Your task to perform on an android device: turn off translation in the chrome app Image 0: 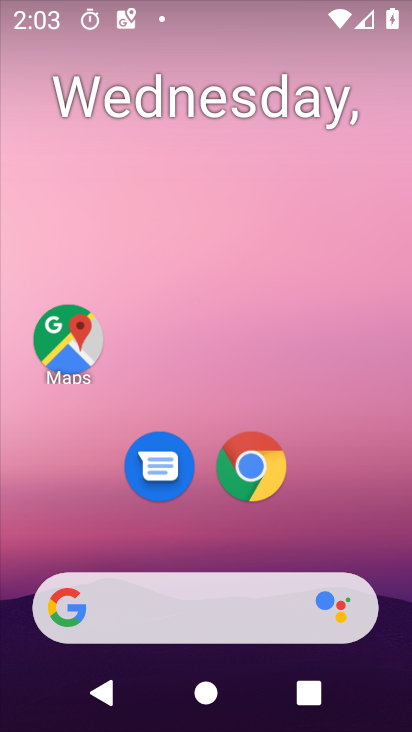
Step 0: click (245, 482)
Your task to perform on an android device: turn off translation in the chrome app Image 1: 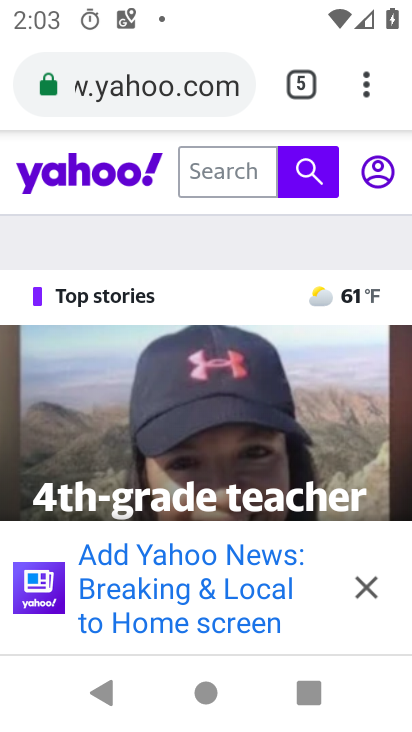
Step 1: click (359, 81)
Your task to perform on an android device: turn off translation in the chrome app Image 2: 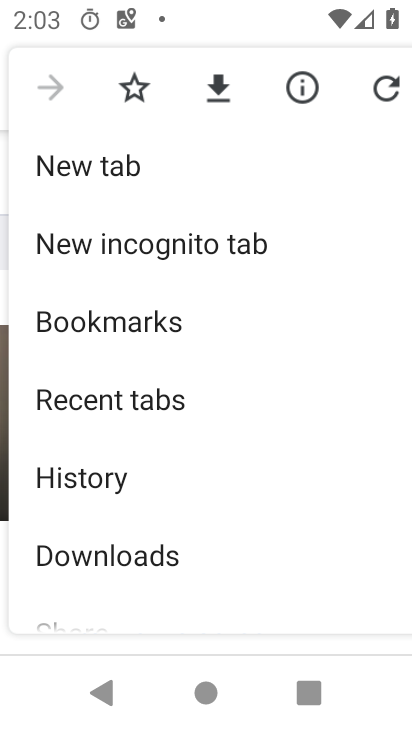
Step 2: drag from (246, 522) to (240, 170)
Your task to perform on an android device: turn off translation in the chrome app Image 3: 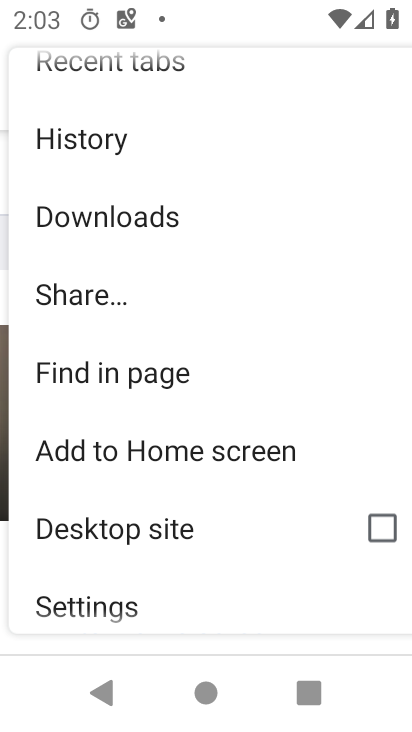
Step 3: drag from (242, 484) to (219, 219)
Your task to perform on an android device: turn off translation in the chrome app Image 4: 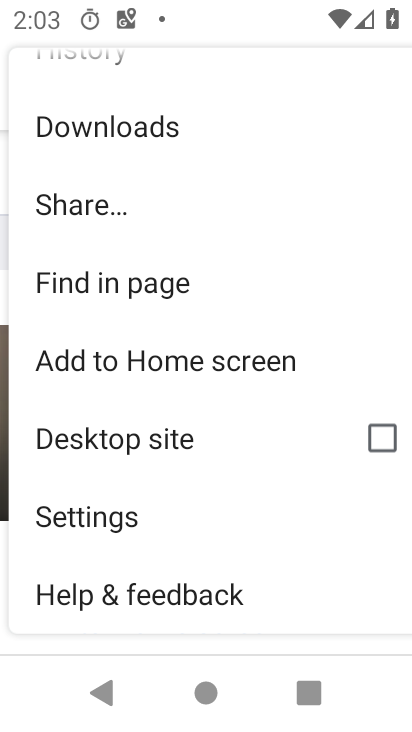
Step 4: click (165, 515)
Your task to perform on an android device: turn off translation in the chrome app Image 5: 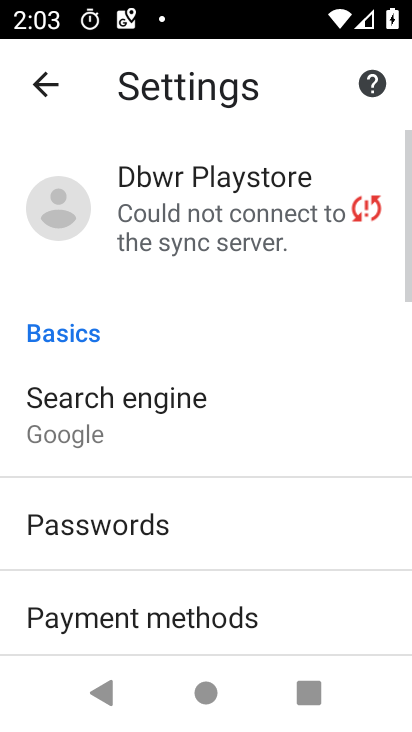
Step 5: drag from (166, 556) to (189, 303)
Your task to perform on an android device: turn off translation in the chrome app Image 6: 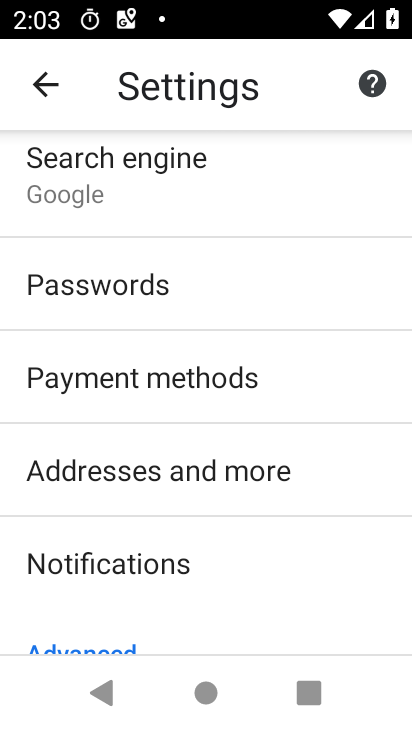
Step 6: drag from (211, 511) to (253, 275)
Your task to perform on an android device: turn off translation in the chrome app Image 7: 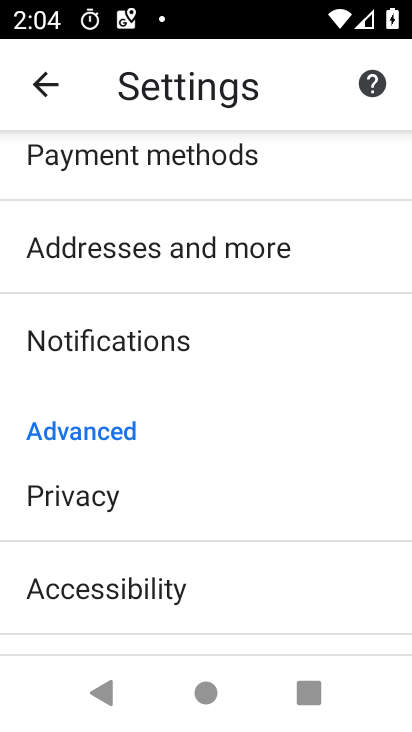
Step 7: drag from (229, 403) to (258, 220)
Your task to perform on an android device: turn off translation in the chrome app Image 8: 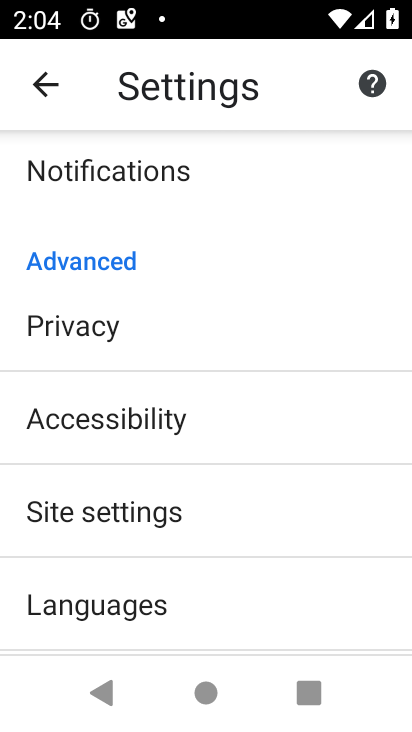
Step 8: click (210, 595)
Your task to perform on an android device: turn off translation in the chrome app Image 9: 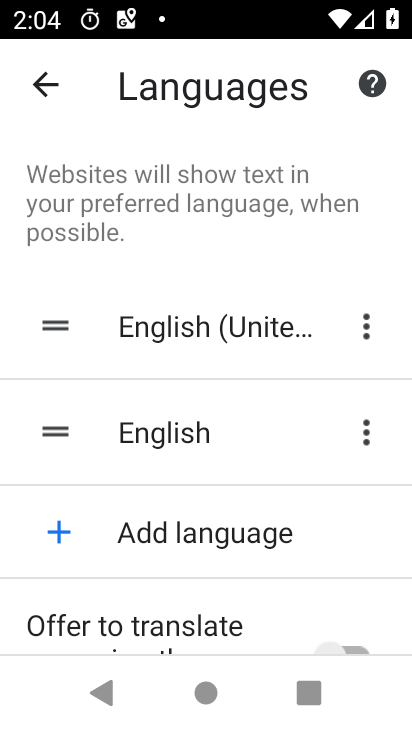
Step 9: task complete